Your task to perform on an android device: What's the weather? Image 0: 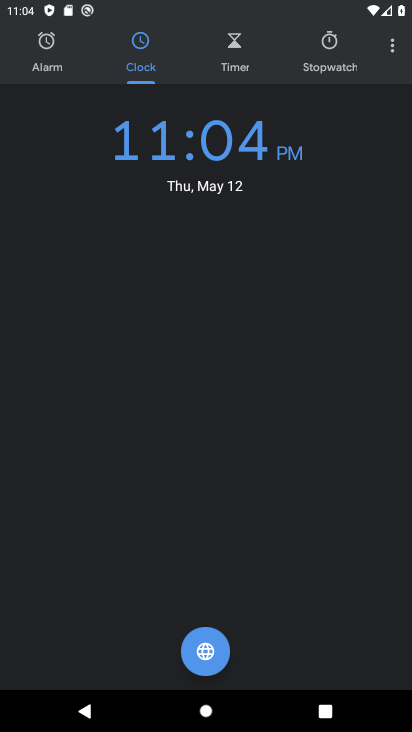
Step 0: press home button
Your task to perform on an android device: What's the weather? Image 1: 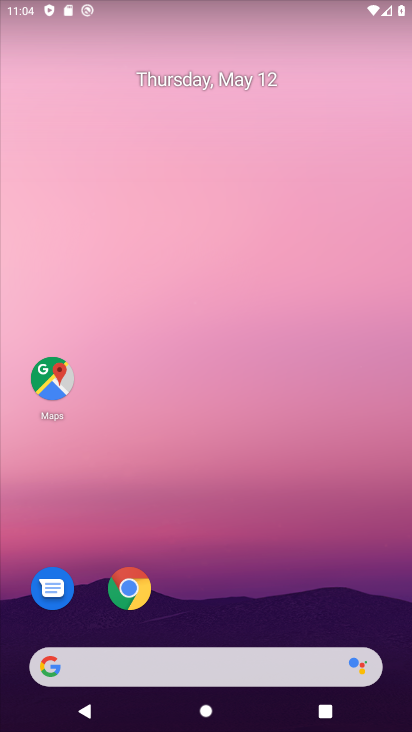
Step 1: drag from (306, 565) to (313, 120)
Your task to perform on an android device: What's the weather? Image 2: 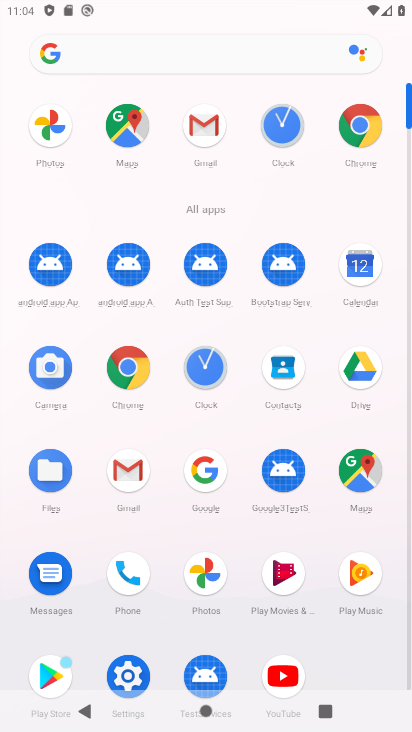
Step 2: click (365, 131)
Your task to perform on an android device: What's the weather? Image 3: 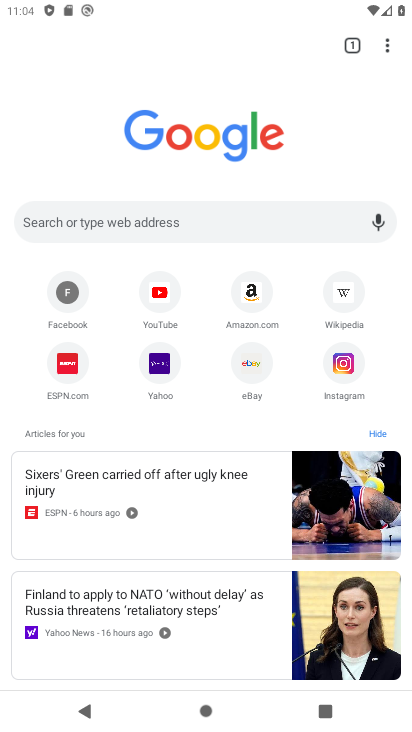
Step 3: click (255, 227)
Your task to perform on an android device: What's the weather? Image 4: 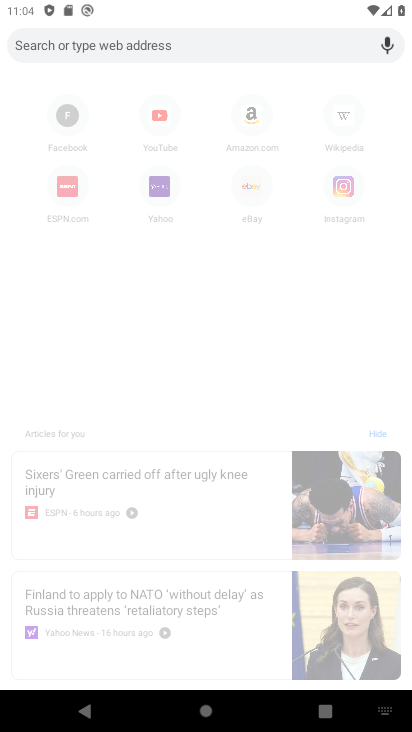
Step 4: type "weather"
Your task to perform on an android device: What's the weather? Image 5: 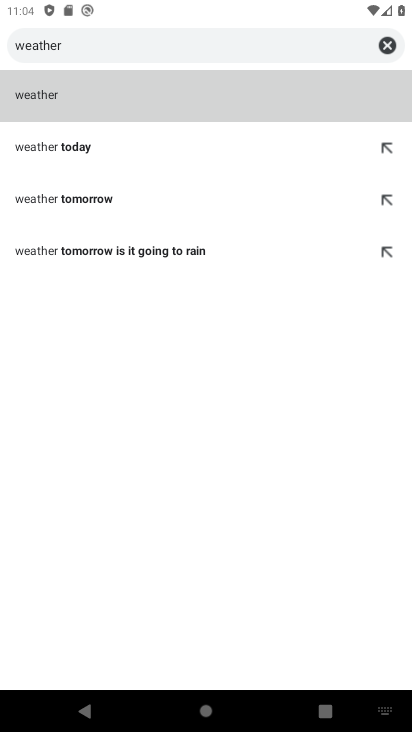
Step 5: click (41, 92)
Your task to perform on an android device: What's the weather? Image 6: 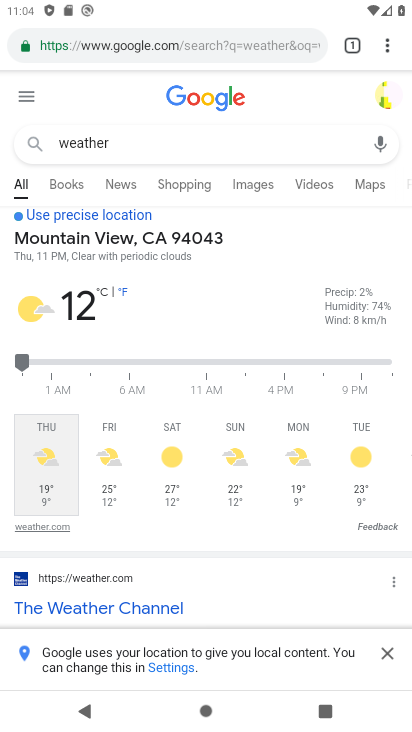
Step 6: task complete